Your task to perform on an android device: turn off javascript in the chrome app Image 0: 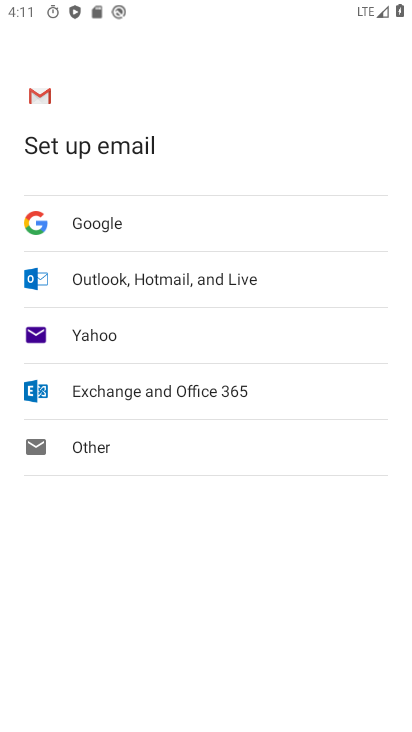
Step 0: press home button
Your task to perform on an android device: turn off javascript in the chrome app Image 1: 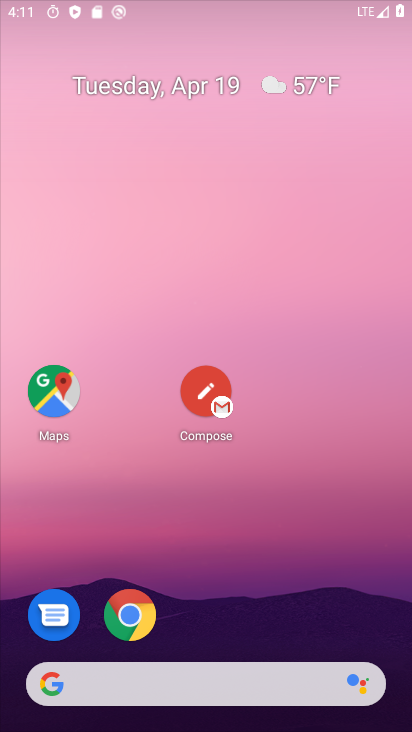
Step 1: drag from (263, 461) to (306, 46)
Your task to perform on an android device: turn off javascript in the chrome app Image 2: 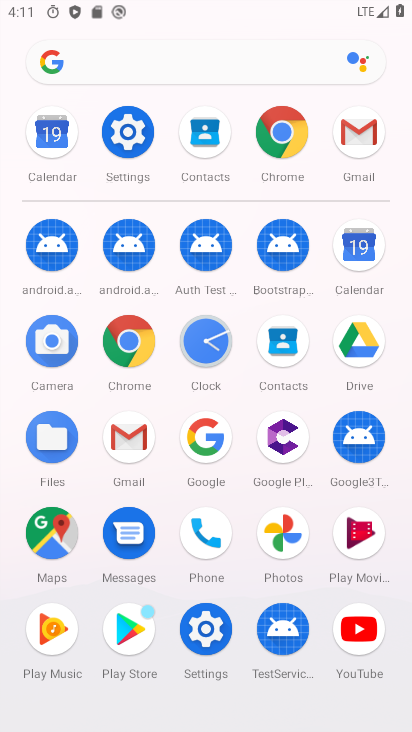
Step 2: click (142, 349)
Your task to perform on an android device: turn off javascript in the chrome app Image 3: 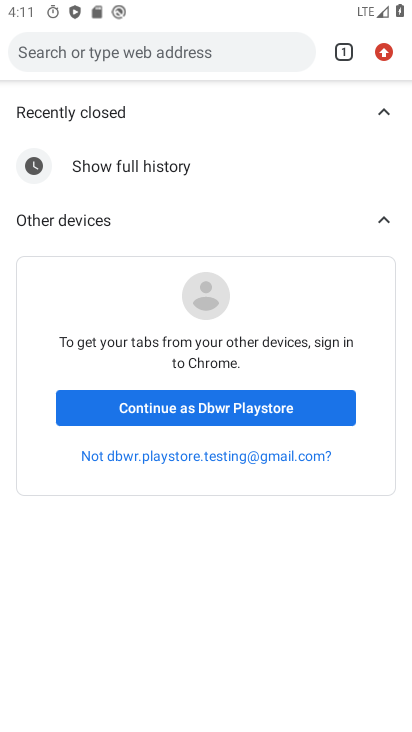
Step 3: click (385, 51)
Your task to perform on an android device: turn off javascript in the chrome app Image 4: 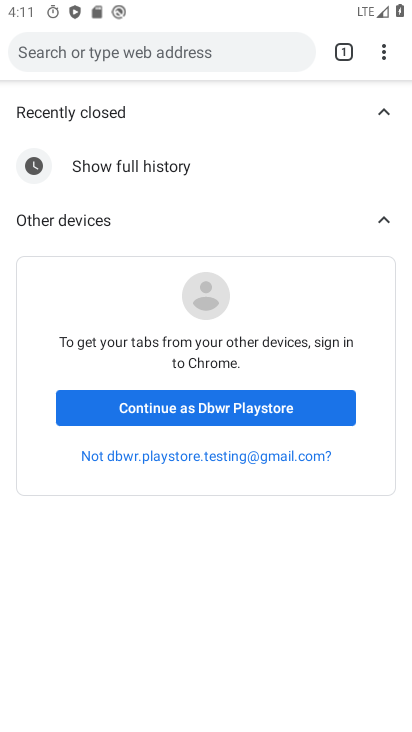
Step 4: click (381, 47)
Your task to perform on an android device: turn off javascript in the chrome app Image 5: 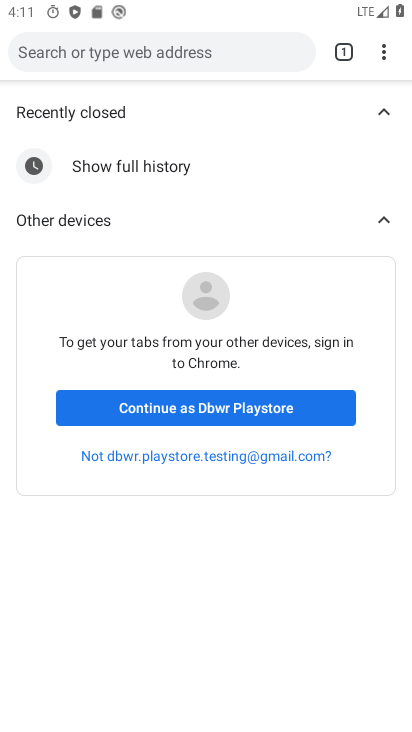
Step 5: click (376, 58)
Your task to perform on an android device: turn off javascript in the chrome app Image 6: 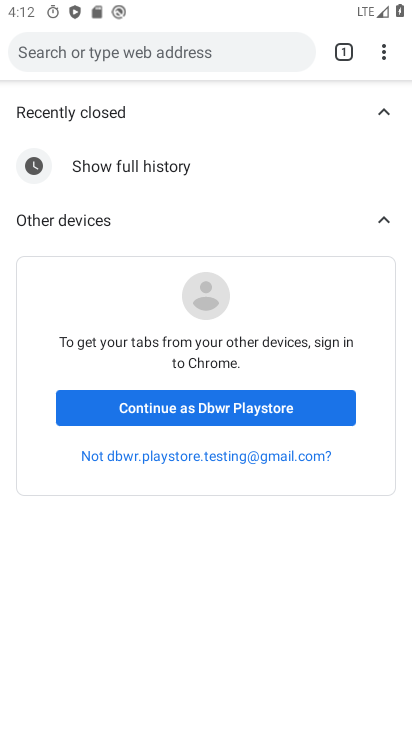
Step 6: click (379, 48)
Your task to perform on an android device: turn off javascript in the chrome app Image 7: 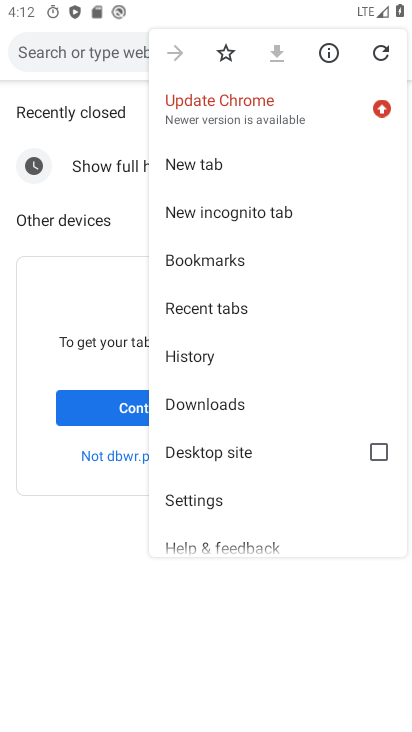
Step 7: click (186, 495)
Your task to perform on an android device: turn off javascript in the chrome app Image 8: 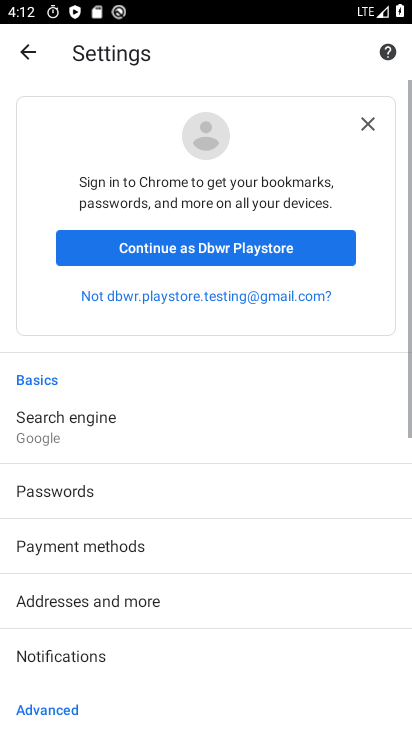
Step 8: drag from (230, 588) to (219, 175)
Your task to perform on an android device: turn off javascript in the chrome app Image 9: 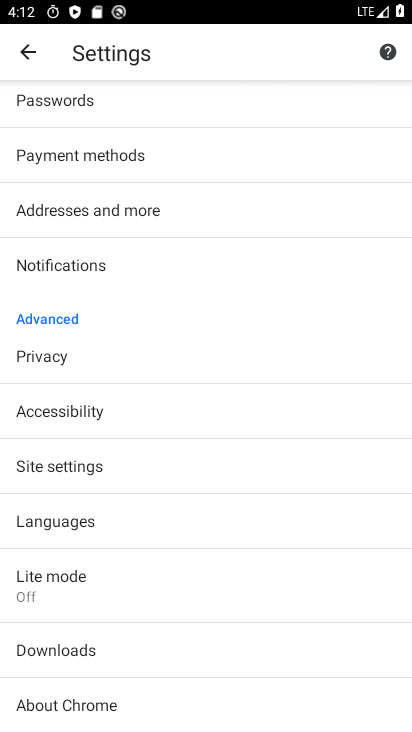
Step 9: click (163, 455)
Your task to perform on an android device: turn off javascript in the chrome app Image 10: 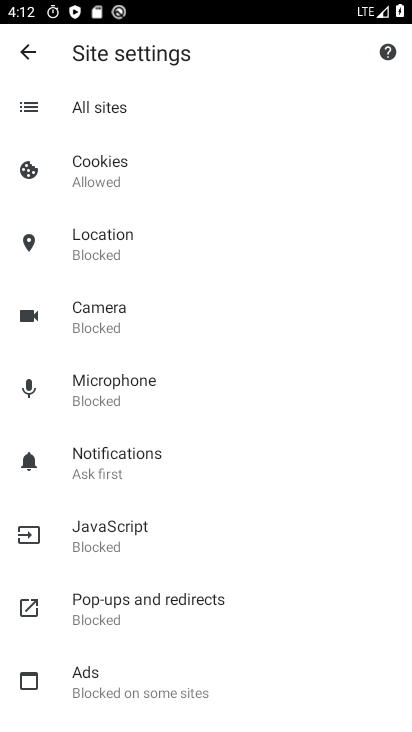
Step 10: click (153, 547)
Your task to perform on an android device: turn off javascript in the chrome app Image 11: 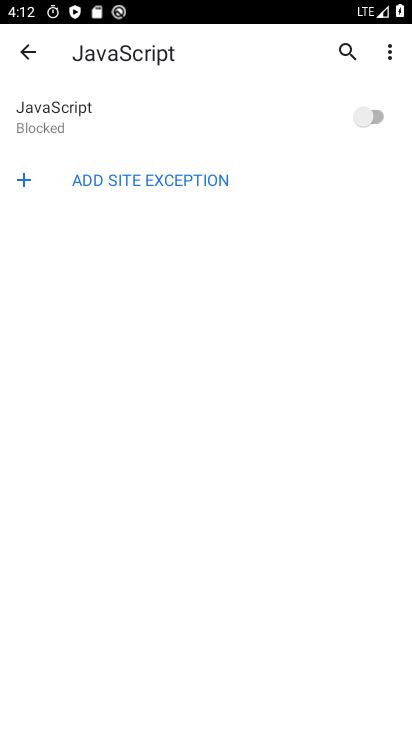
Step 11: task complete